Your task to perform on an android device: Open the calendar and show me this week's events? Image 0: 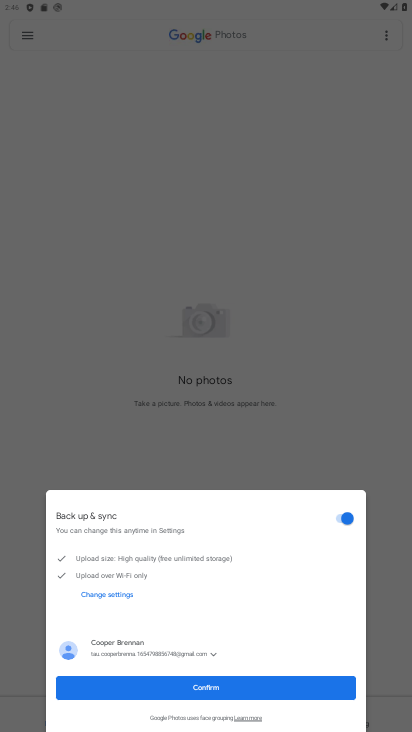
Step 0: press home button
Your task to perform on an android device: Open the calendar and show me this week's events? Image 1: 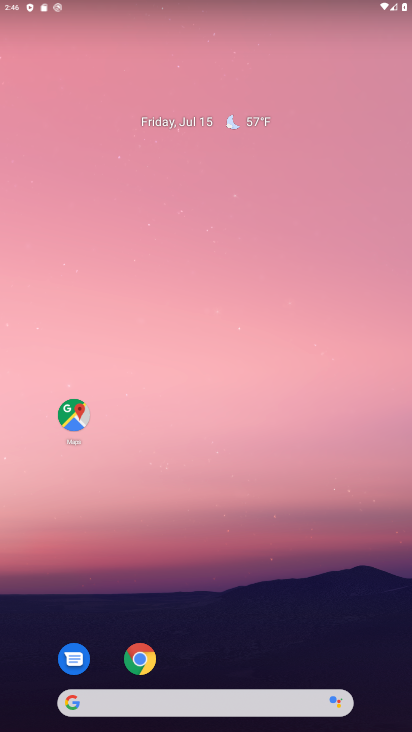
Step 1: drag from (235, 652) to (173, 76)
Your task to perform on an android device: Open the calendar and show me this week's events? Image 2: 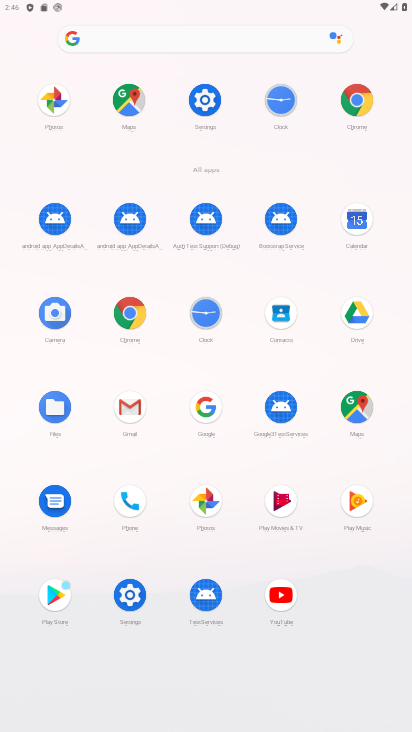
Step 2: click (364, 223)
Your task to perform on an android device: Open the calendar and show me this week's events? Image 3: 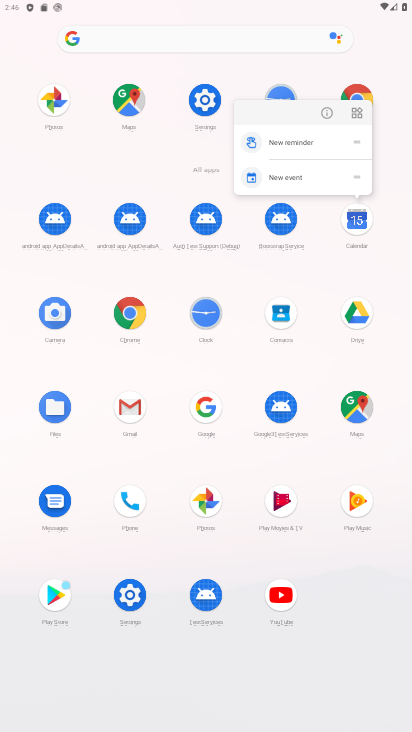
Step 3: click (358, 235)
Your task to perform on an android device: Open the calendar and show me this week's events? Image 4: 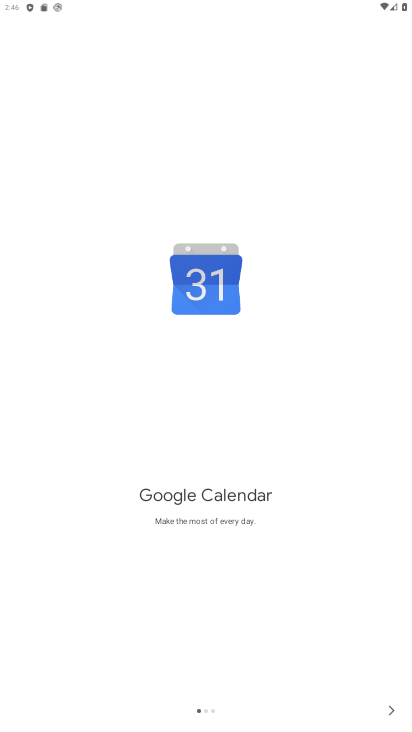
Step 4: click (393, 709)
Your task to perform on an android device: Open the calendar and show me this week's events? Image 5: 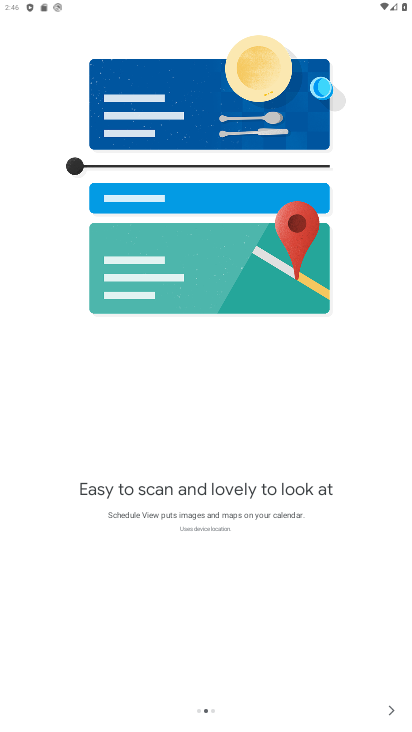
Step 5: click (393, 708)
Your task to perform on an android device: Open the calendar and show me this week's events? Image 6: 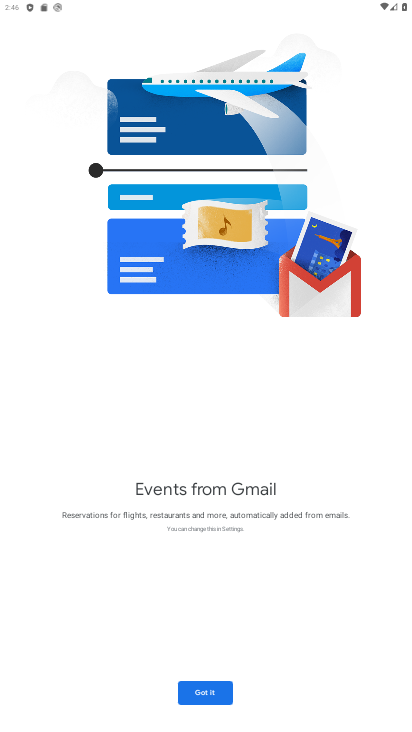
Step 6: click (206, 698)
Your task to perform on an android device: Open the calendar and show me this week's events? Image 7: 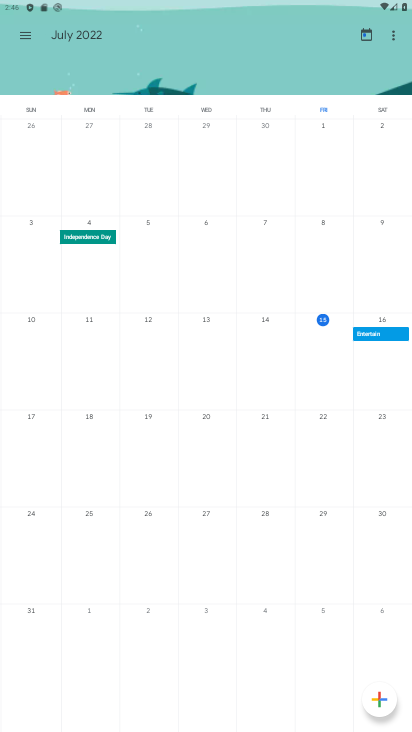
Step 7: click (19, 33)
Your task to perform on an android device: Open the calendar and show me this week's events? Image 8: 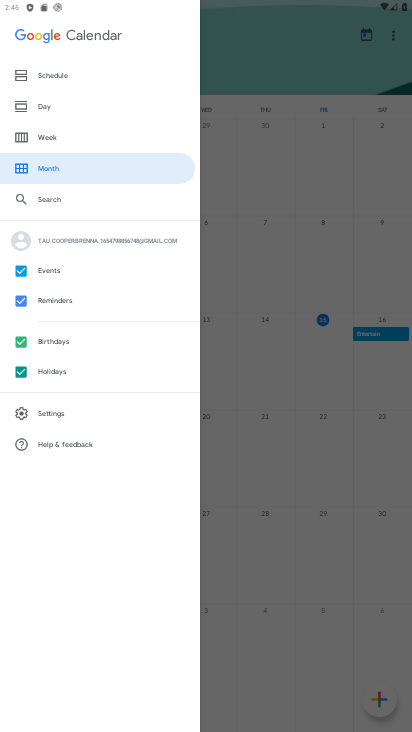
Step 8: click (38, 295)
Your task to perform on an android device: Open the calendar and show me this week's events? Image 9: 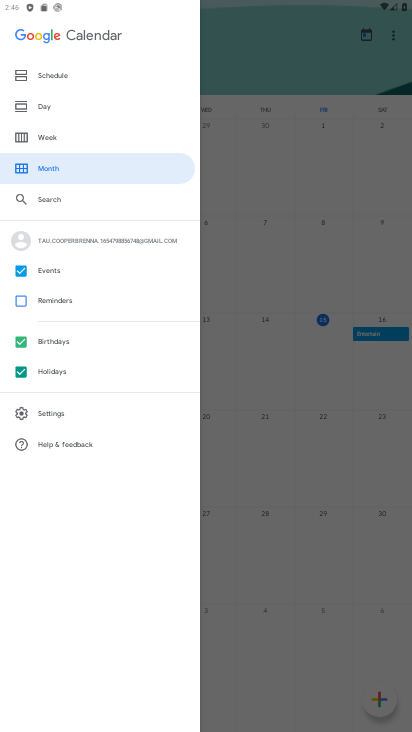
Step 9: click (38, 353)
Your task to perform on an android device: Open the calendar and show me this week's events? Image 10: 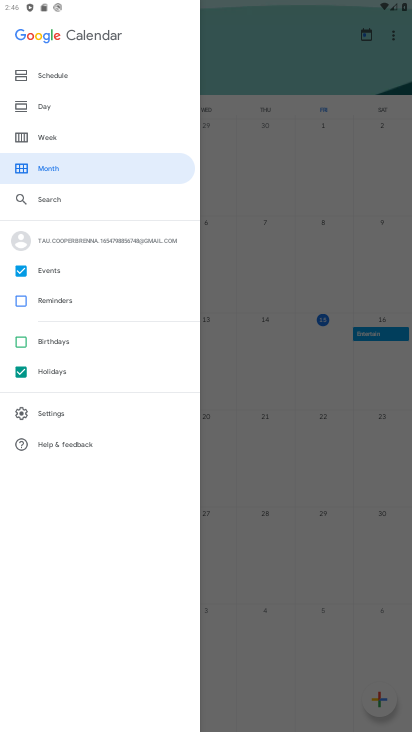
Step 10: click (42, 370)
Your task to perform on an android device: Open the calendar and show me this week's events? Image 11: 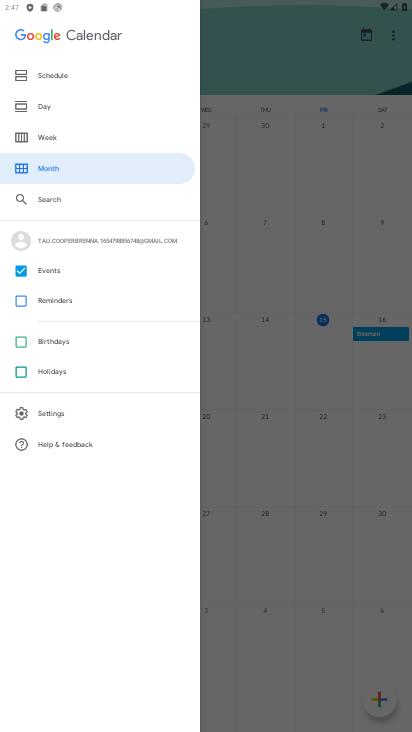
Step 11: click (45, 139)
Your task to perform on an android device: Open the calendar and show me this week's events? Image 12: 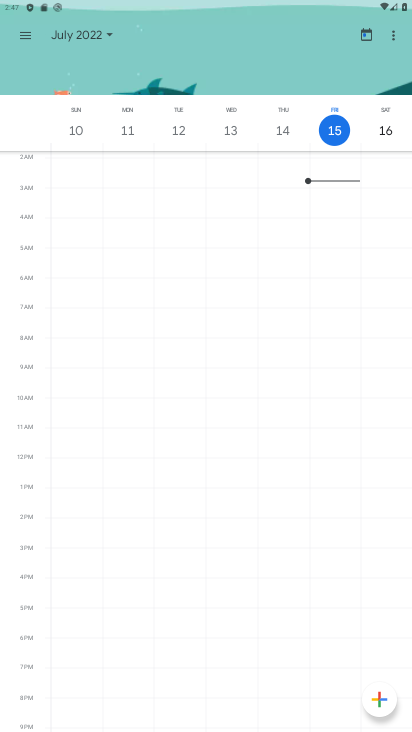
Step 12: task complete